Your task to perform on an android device: Open display settings Image 0: 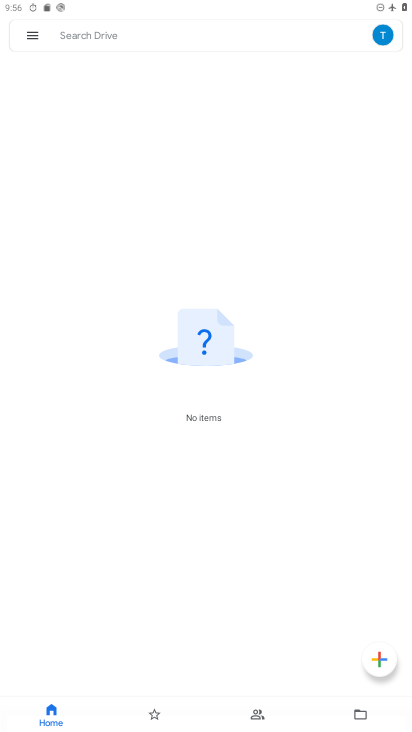
Step 0: press home button
Your task to perform on an android device: Open display settings Image 1: 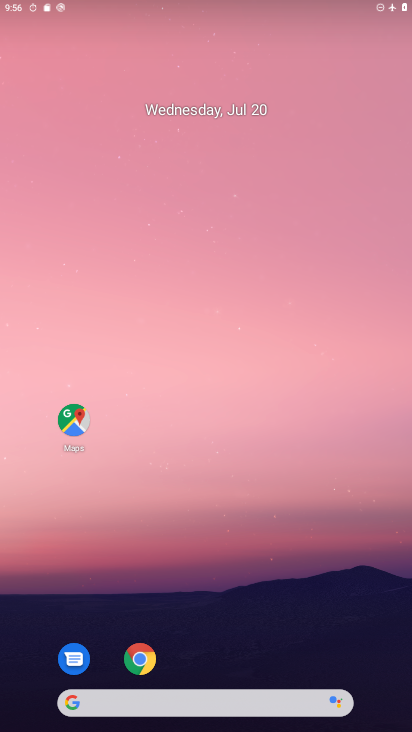
Step 1: drag from (318, 637) to (249, 119)
Your task to perform on an android device: Open display settings Image 2: 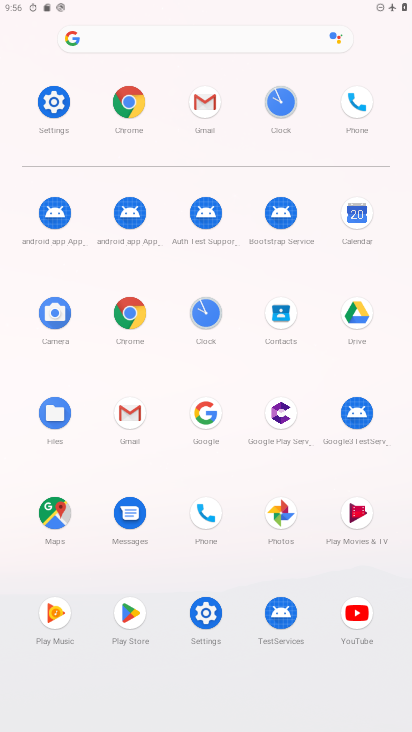
Step 2: click (56, 100)
Your task to perform on an android device: Open display settings Image 3: 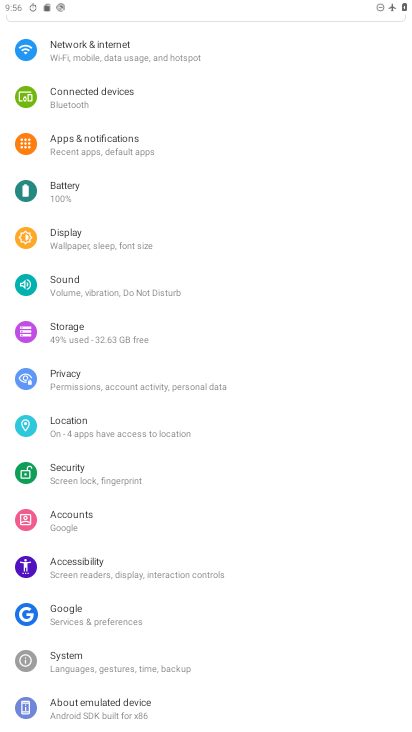
Step 3: click (110, 246)
Your task to perform on an android device: Open display settings Image 4: 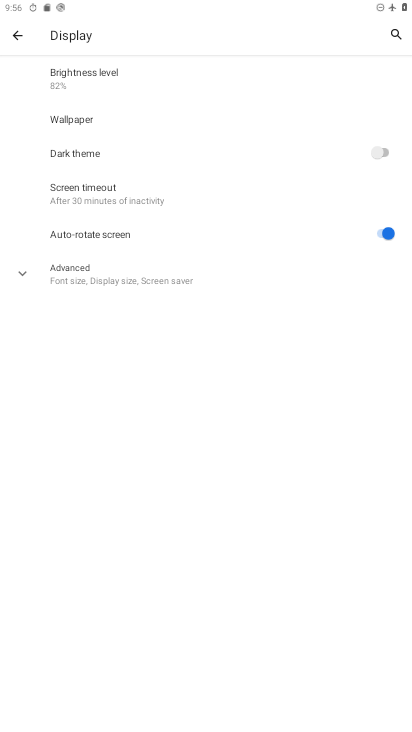
Step 4: task complete